Your task to perform on an android device: Open Google Image 0: 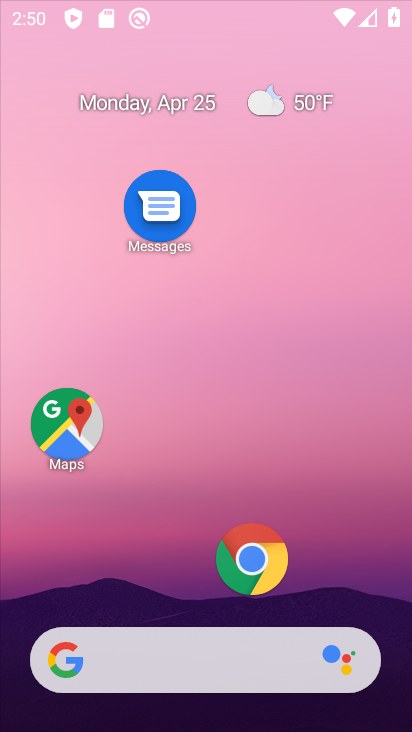
Step 0: press home button
Your task to perform on an android device: Open Google Image 1: 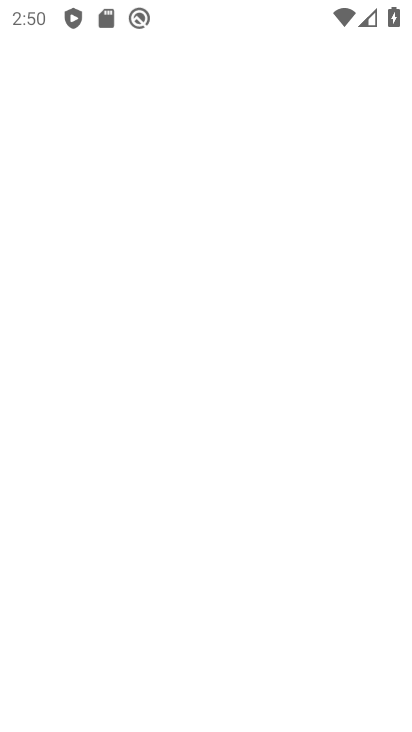
Step 1: press home button
Your task to perform on an android device: Open Google Image 2: 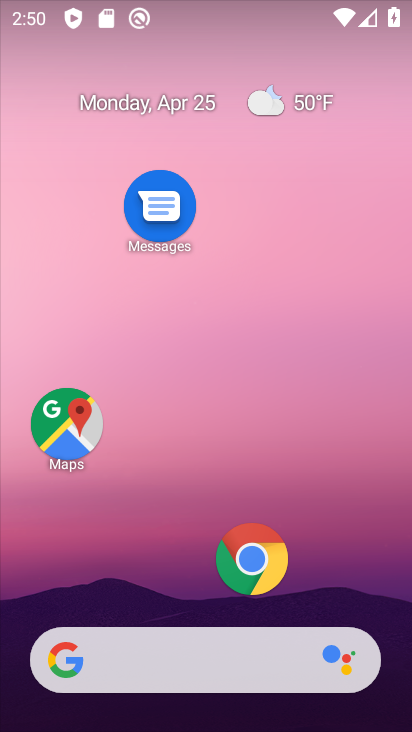
Step 2: click (127, 657)
Your task to perform on an android device: Open Google Image 3: 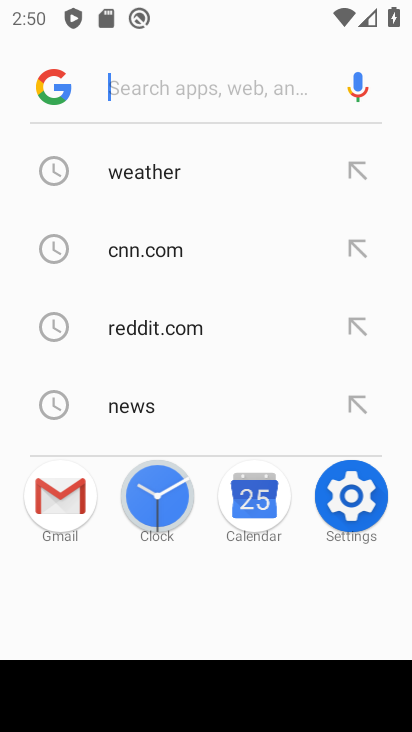
Step 3: click (59, 95)
Your task to perform on an android device: Open Google Image 4: 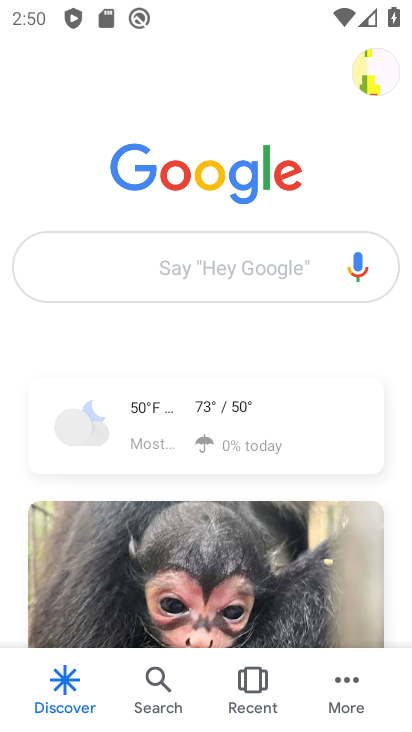
Step 4: task complete